Your task to perform on an android device: Open settings on Google Maps Image 0: 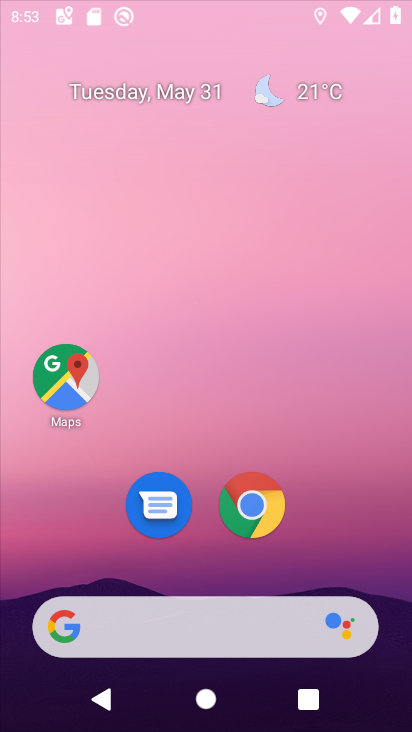
Step 0: click (165, 153)
Your task to perform on an android device: Open settings on Google Maps Image 1: 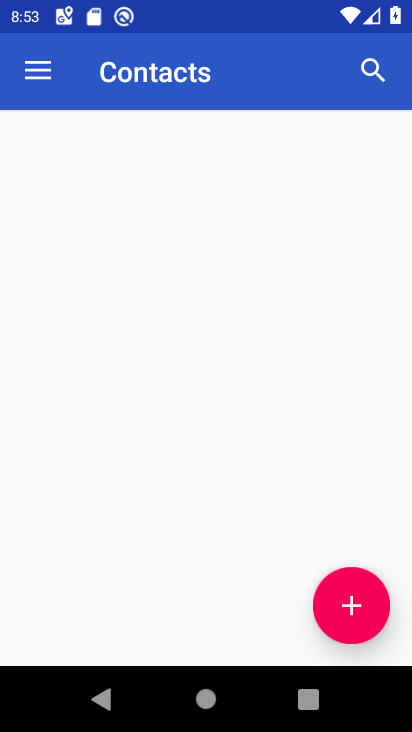
Step 1: press home button
Your task to perform on an android device: Open settings on Google Maps Image 2: 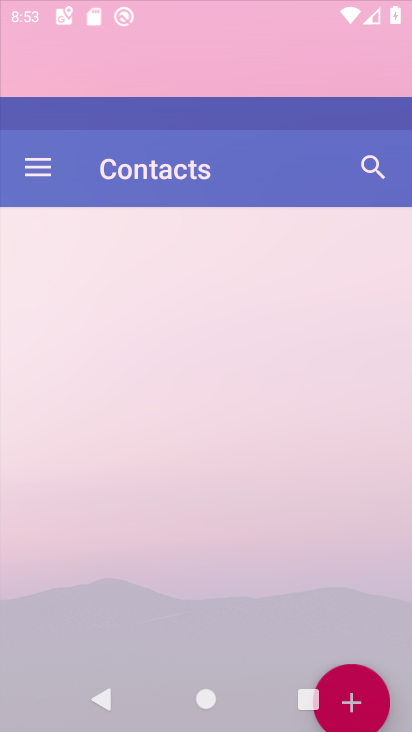
Step 2: press home button
Your task to perform on an android device: Open settings on Google Maps Image 3: 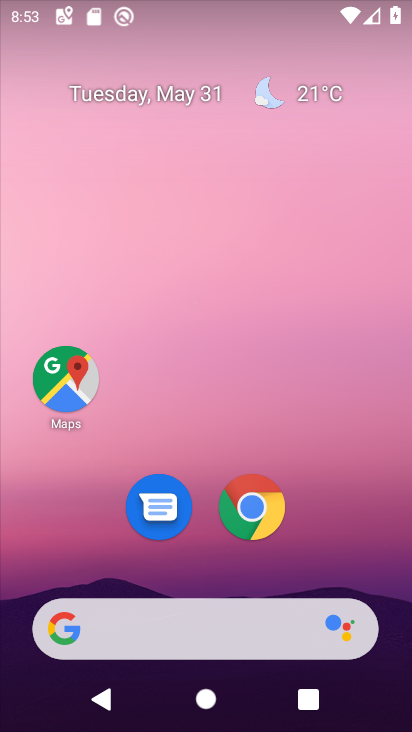
Step 3: drag from (249, 662) to (183, 47)
Your task to perform on an android device: Open settings on Google Maps Image 4: 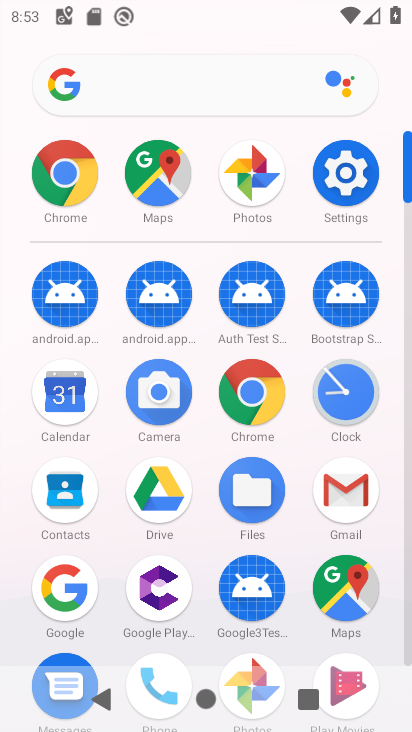
Step 4: click (356, 587)
Your task to perform on an android device: Open settings on Google Maps Image 5: 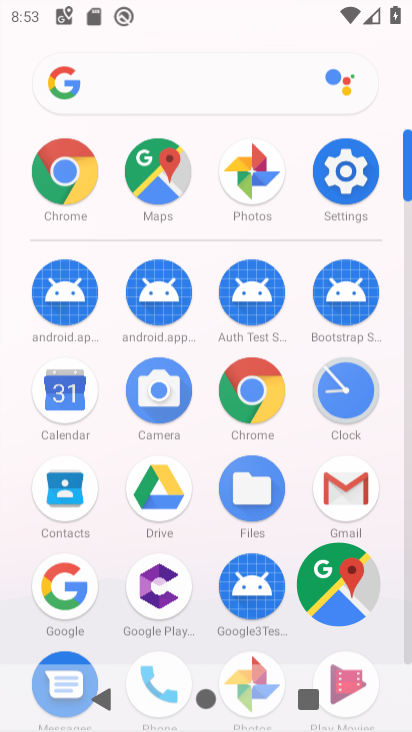
Step 5: click (351, 587)
Your task to perform on an android device: Open settings on Google Maps Image 6: 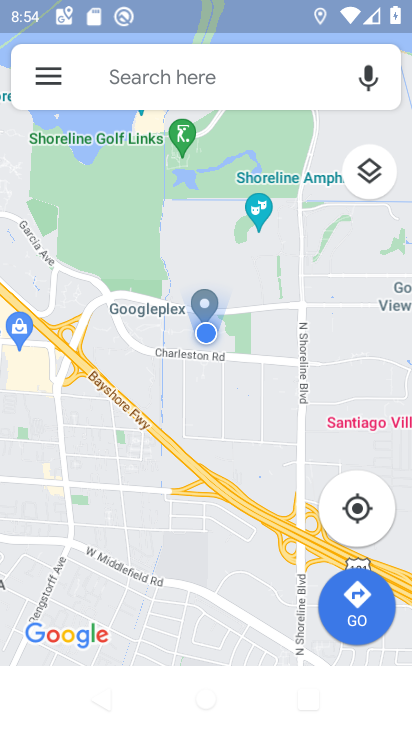
Step 6: click (51, 79)
Your task to perform on an android device: Open settings on Google Maps Image 7: 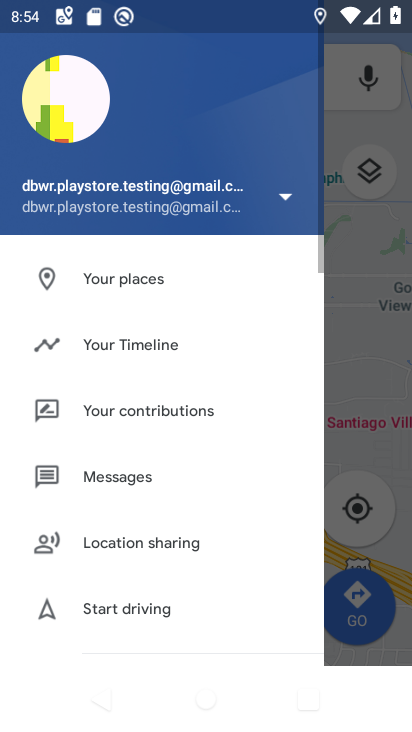
Step 7: click (142, 339)
Your task to perform on an android device: Open settings on Google Maps Image 8: 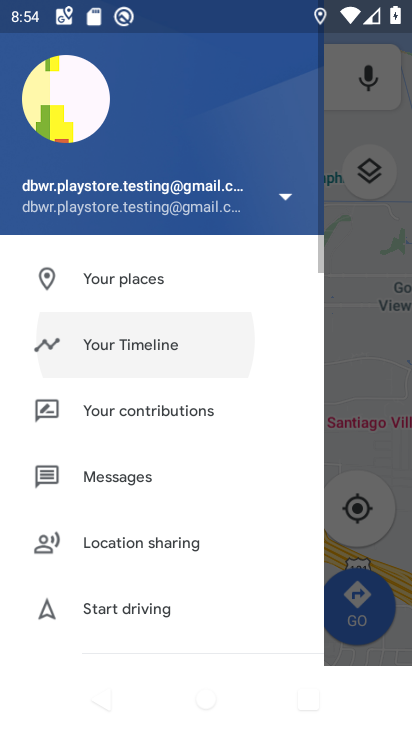
Step 8: click (142, 339)
Your task to perform on an android device: Open settings on Google Maps Image 9: 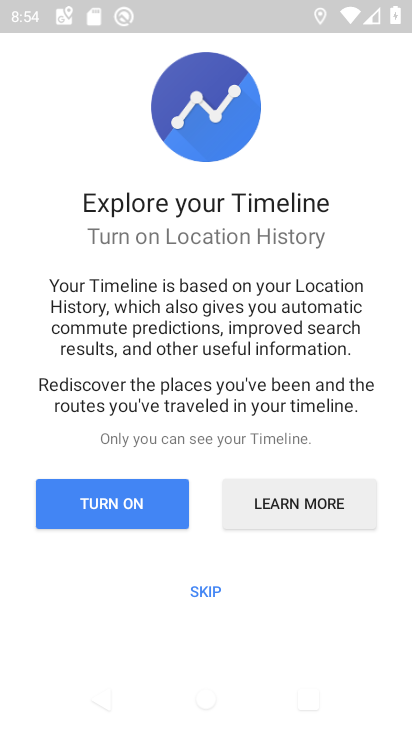
Step 9: click (133, 495)
Your task to perform on an android device: Open settings on Google Maps Image 10: 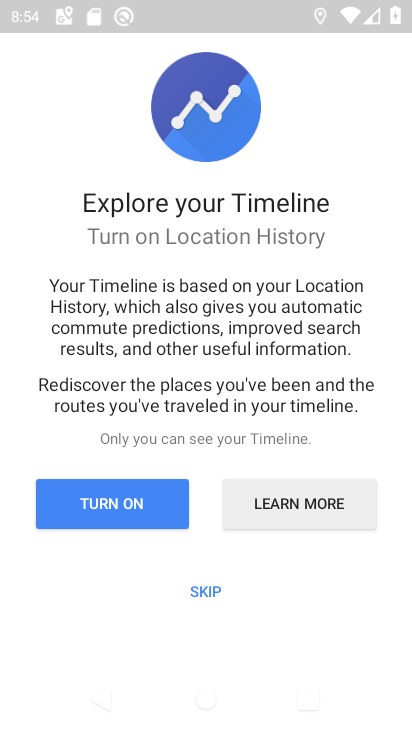
Step 10: click (128, 495)
Your task to perform on an android device: Open settings on Google Maps Image 11: 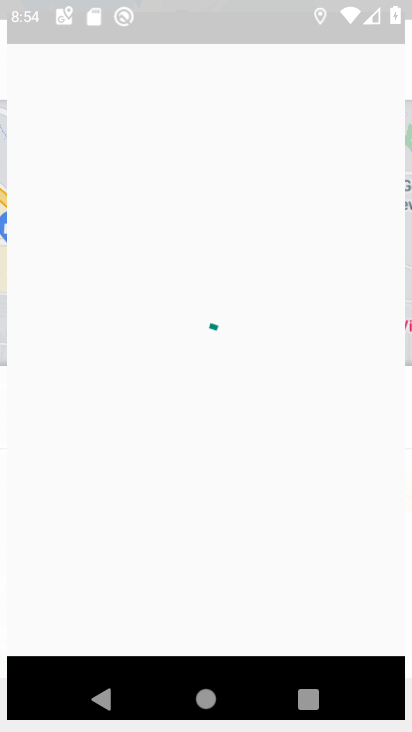
Step 11: drag from (376, 81) to (334, 618)
Your task to perform on an android device: Open settings on Google Maps Image 12: 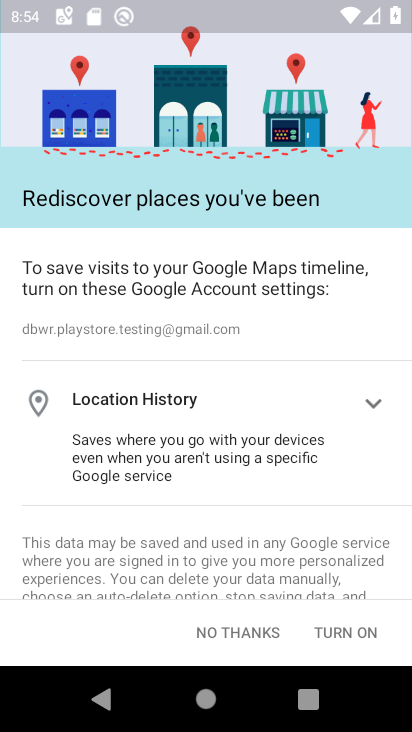
Step 12: click (329, 617)
Your task to perform on an android device: Open settings on Google Maps Image 13: 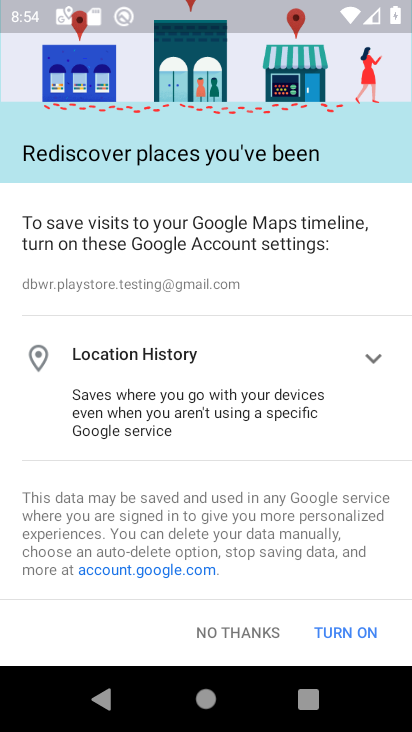
Step 13: task complete